Your task to perform on an android device: Set the phone to "Do not disturb". Image 0: 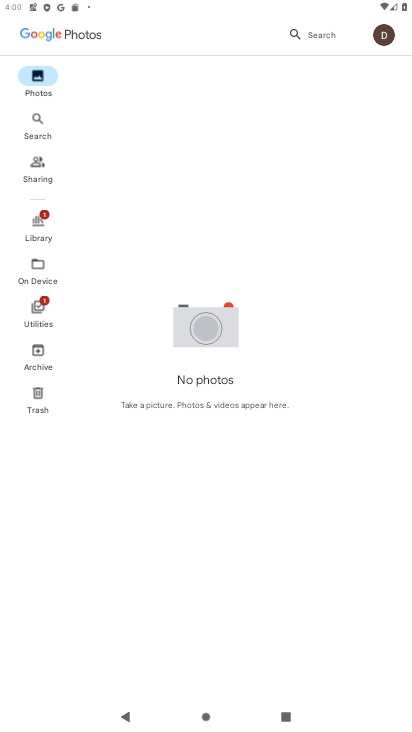
Step 0: press home button
Your task to perform on an android device: Set the phone to "Do not disturb". Image 1: 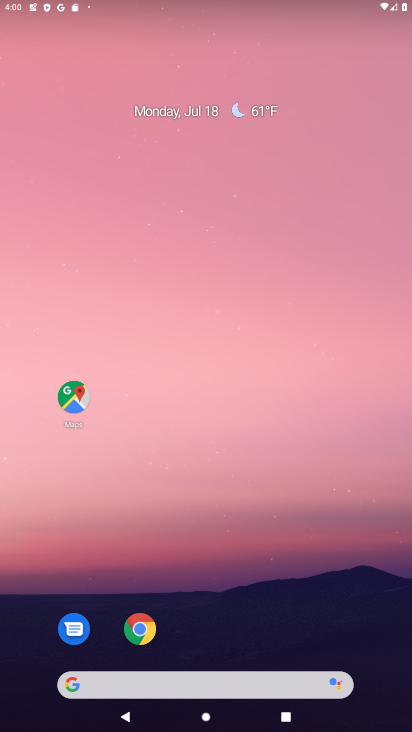
Step 1: drag from (165, 669) to (148, 212)
Your task to perform on an android device: Set the phone to "Do not disturb". Image 2: 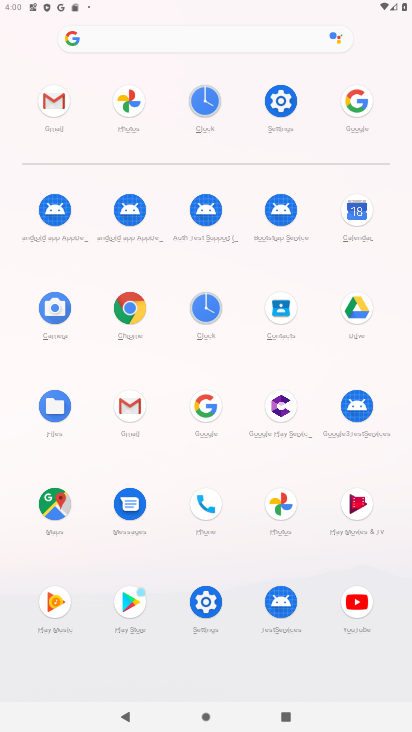
Step 2: click (212, 600)
Your task to perform on an android device: Set the phone to "Do not disturb". Image 3: 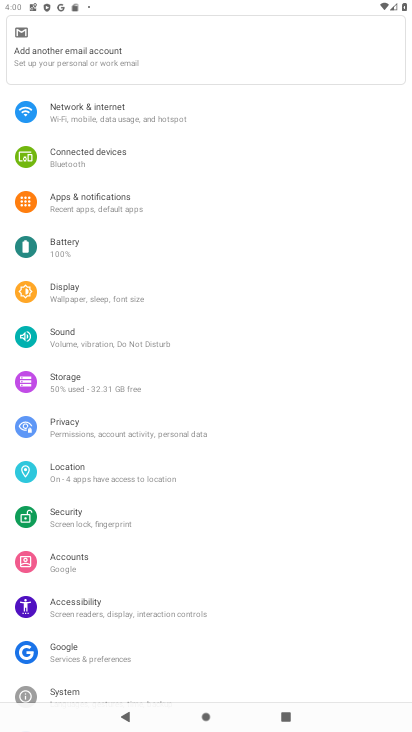
Step 3: click (99, 334)
Your task to perform on an android device: Set the phone to "Do not disturb". Image 4: 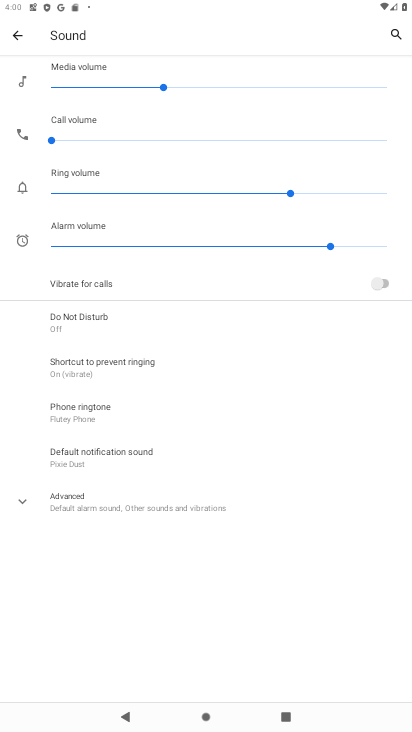
Step 4: click (64, 508)
Your task to perform on an android device: Set the phone to "Do not disturb". Image 5: 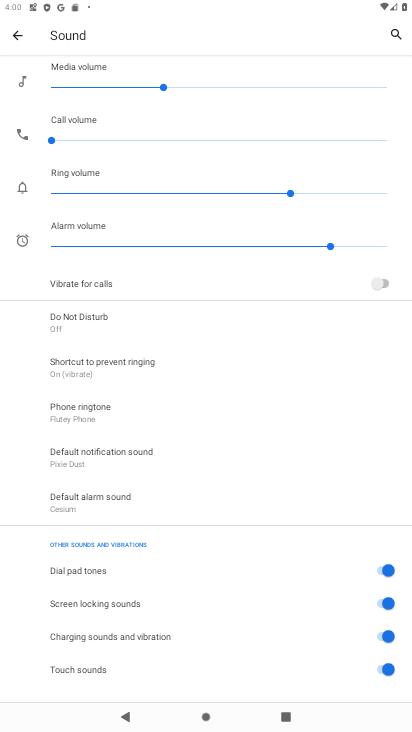
Step 5: click (60, 310)
Your task to perform on an android device: Set the phone to "Do not disturb". Image 6: 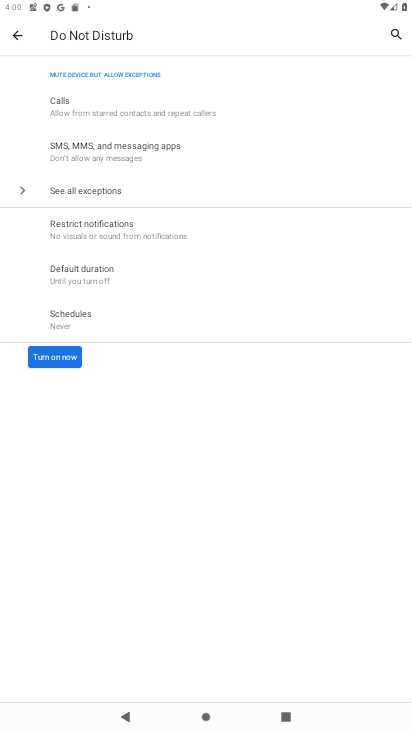
Step 6: click (69, 352)
Your task to perform on an android device: Set the phone to "Do not disturb". Image 7: 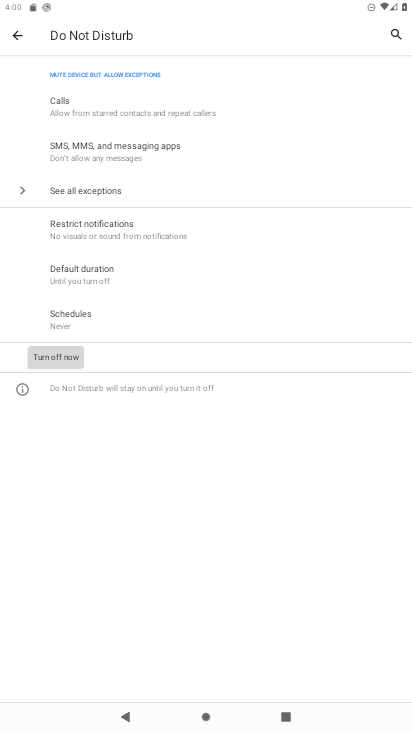
Step 7: task complete